Your task to perform on an android device: empty trash in the gmail app Image 0: 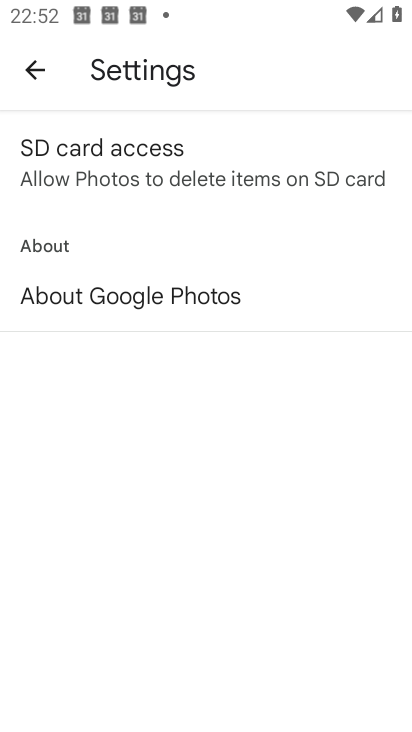
Step 0: press home button
Your task to perform on an android device: empty trash in the gmail app Image 1: 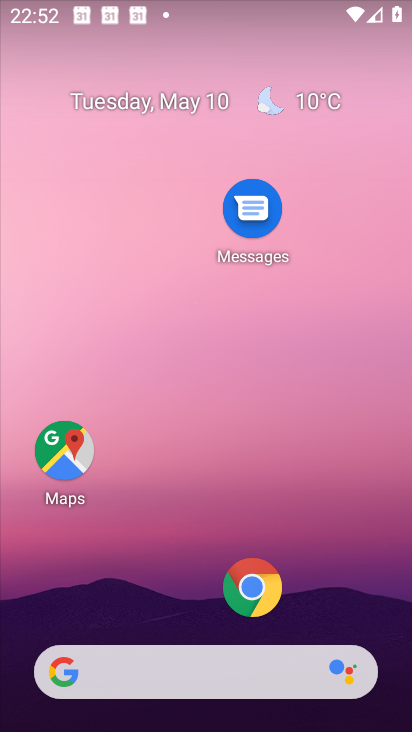
Step 1: drag from (141, 556) to (239, 7)
Your task to perform on an android device: empty trash in the gmail app Image 2: 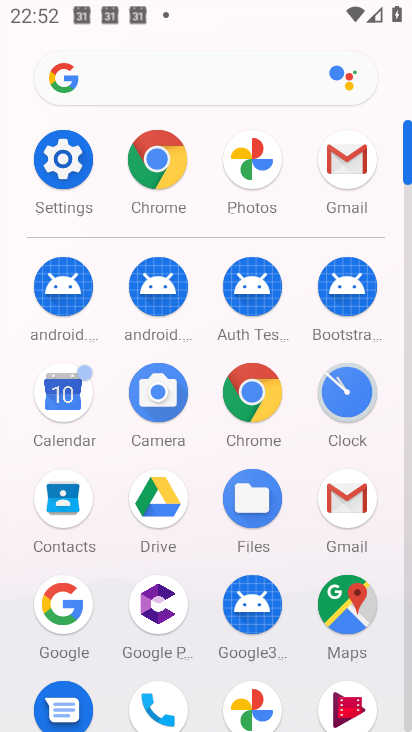
Step 2: click (334, 500)
Your task to perform on an android device: empty trash in the gmail app Image 3: 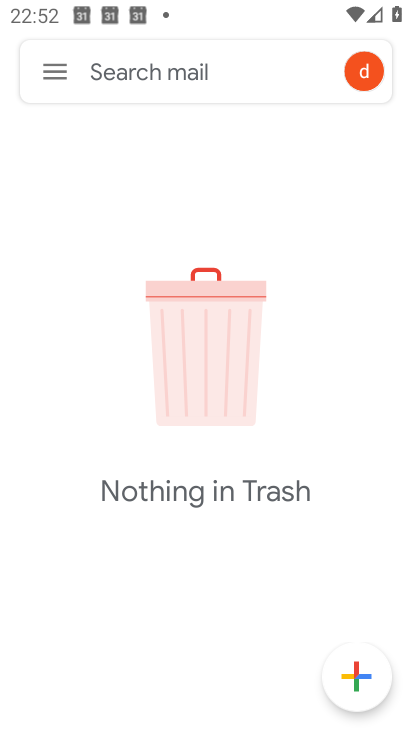
Step 3: click (59, 76)
Your task to perform on an android device: empty trash in the gmail app Image 4: 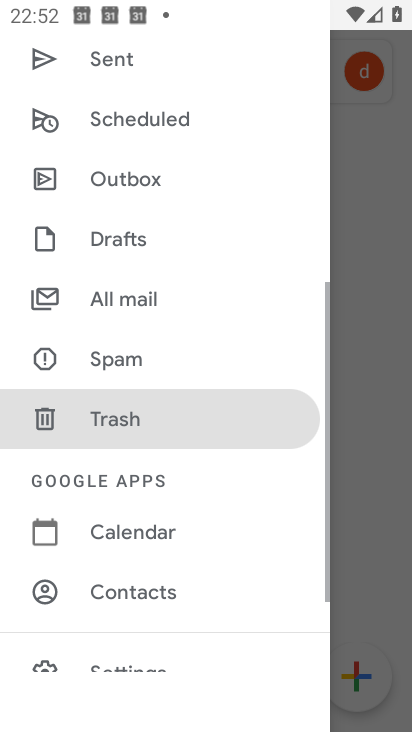
Step 4: click (131, 426)
Your task to perform on an android device: empty trash in the gmail app Image 5: 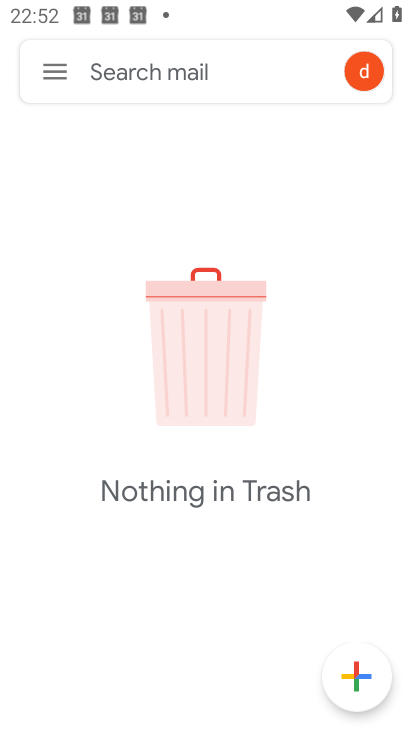
Step 5: task complete